Your task to perform on an android device: set default search engine in the chrome app Image 0: 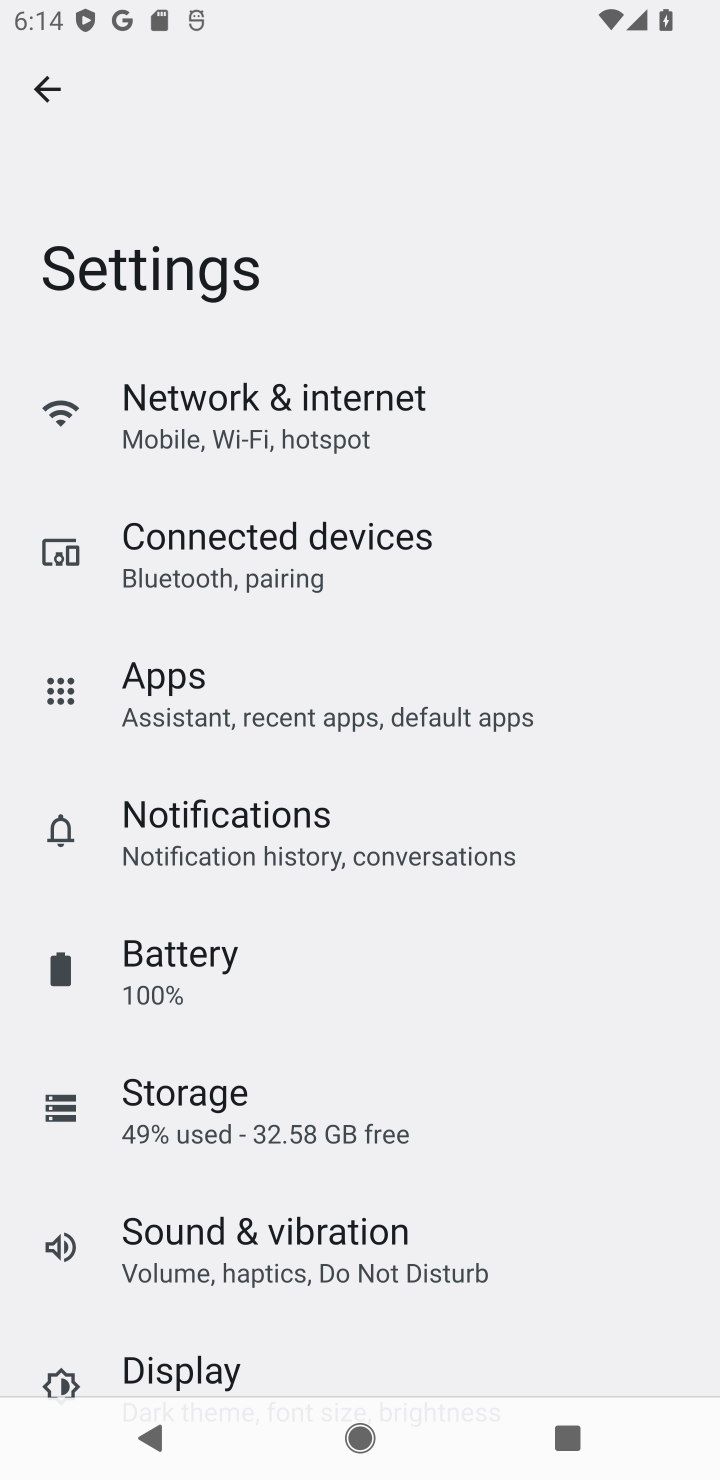
Step 0: press home button
Your task to perform on an android device: set default search engine in the chrome app Image 1: 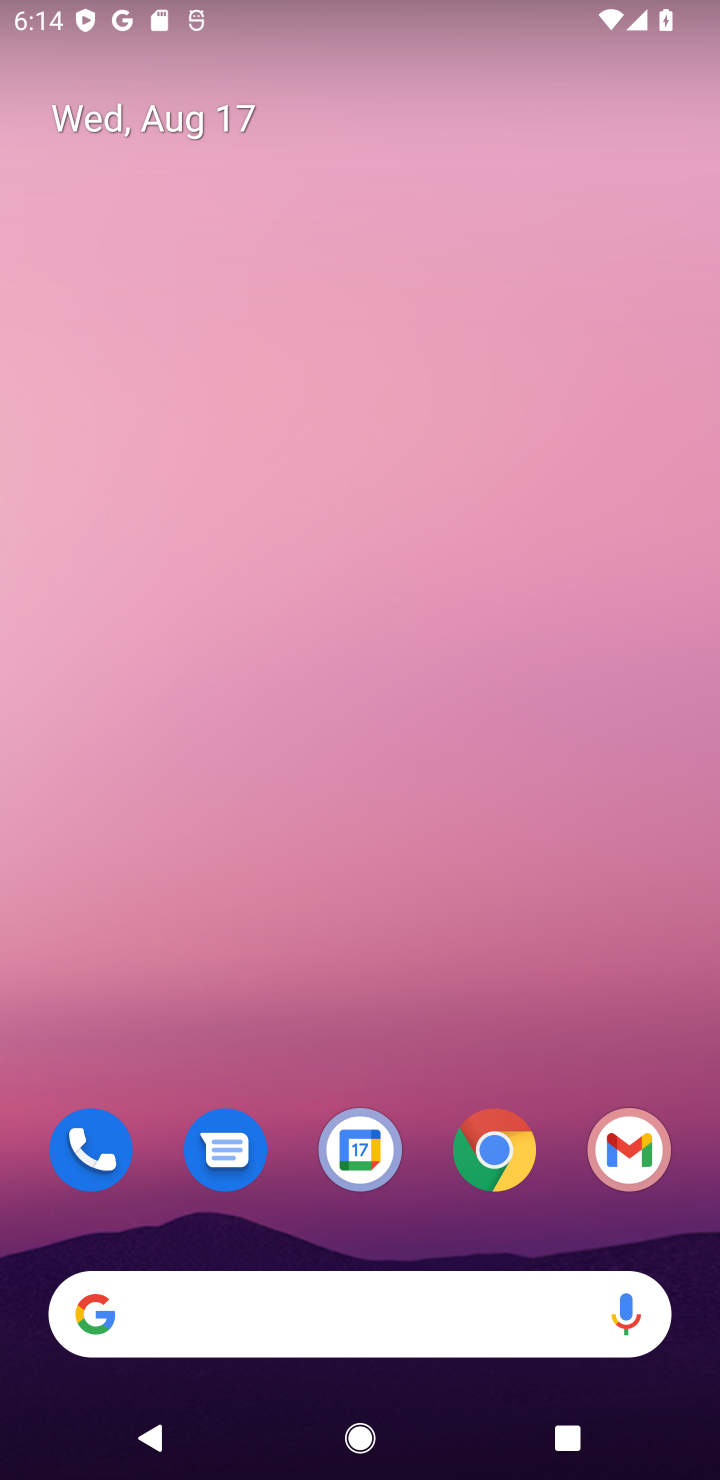
Step 1: click (502, 1159)
Your task to perform on an android device: set default search engine in the chrome app Image 2: 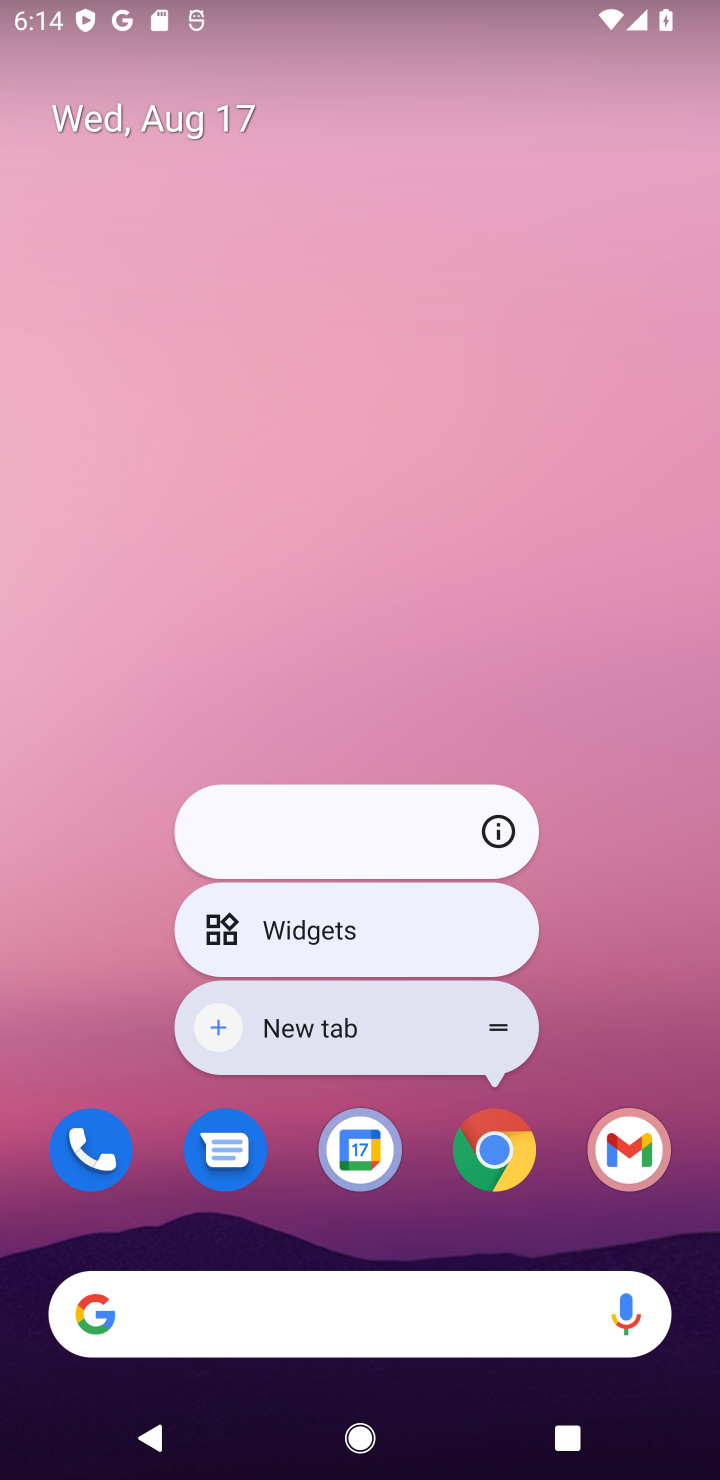
Step 2: click (504, 1159)
Your task to perform on an android device: set default search engine in the chrome app Image 3: 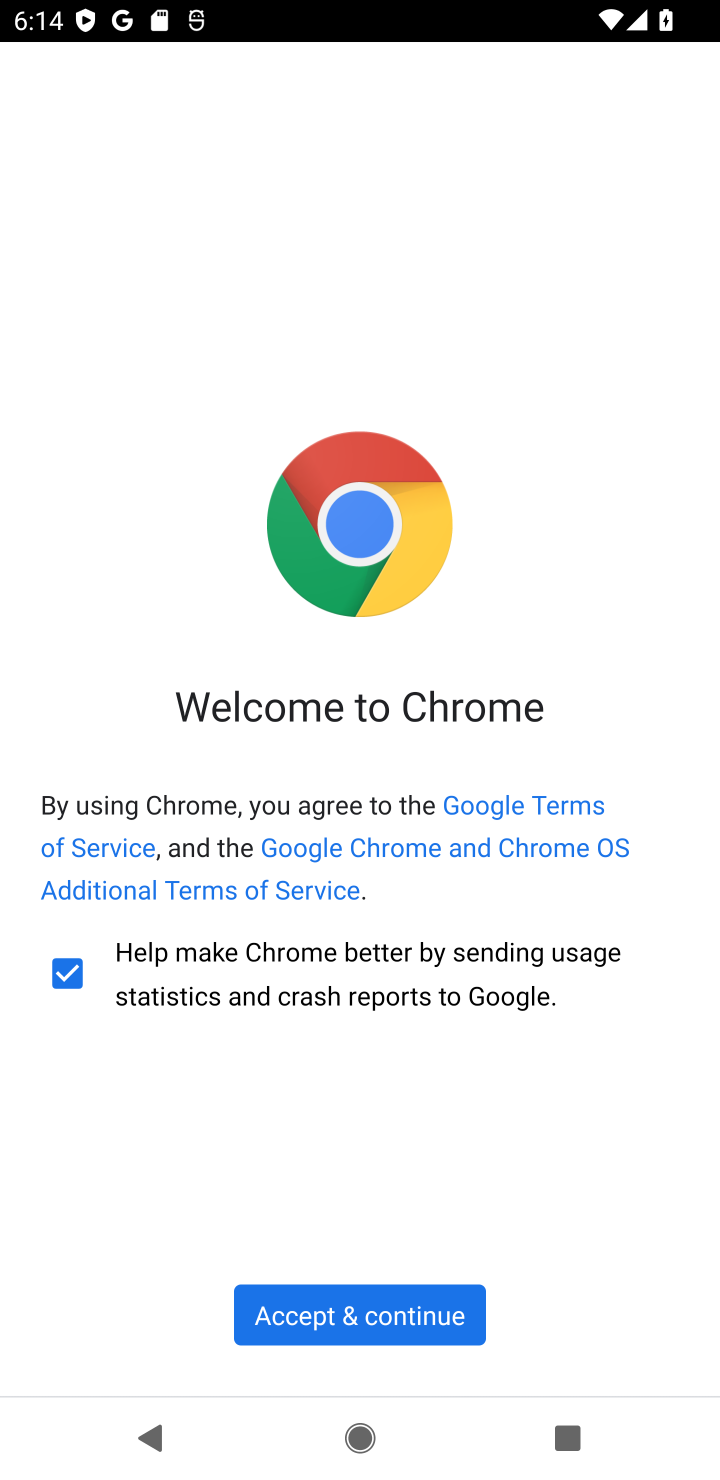
Step 3: click (377, 1325)
Your task to perform on an android device: set default search engine in the chrome app Image 4: 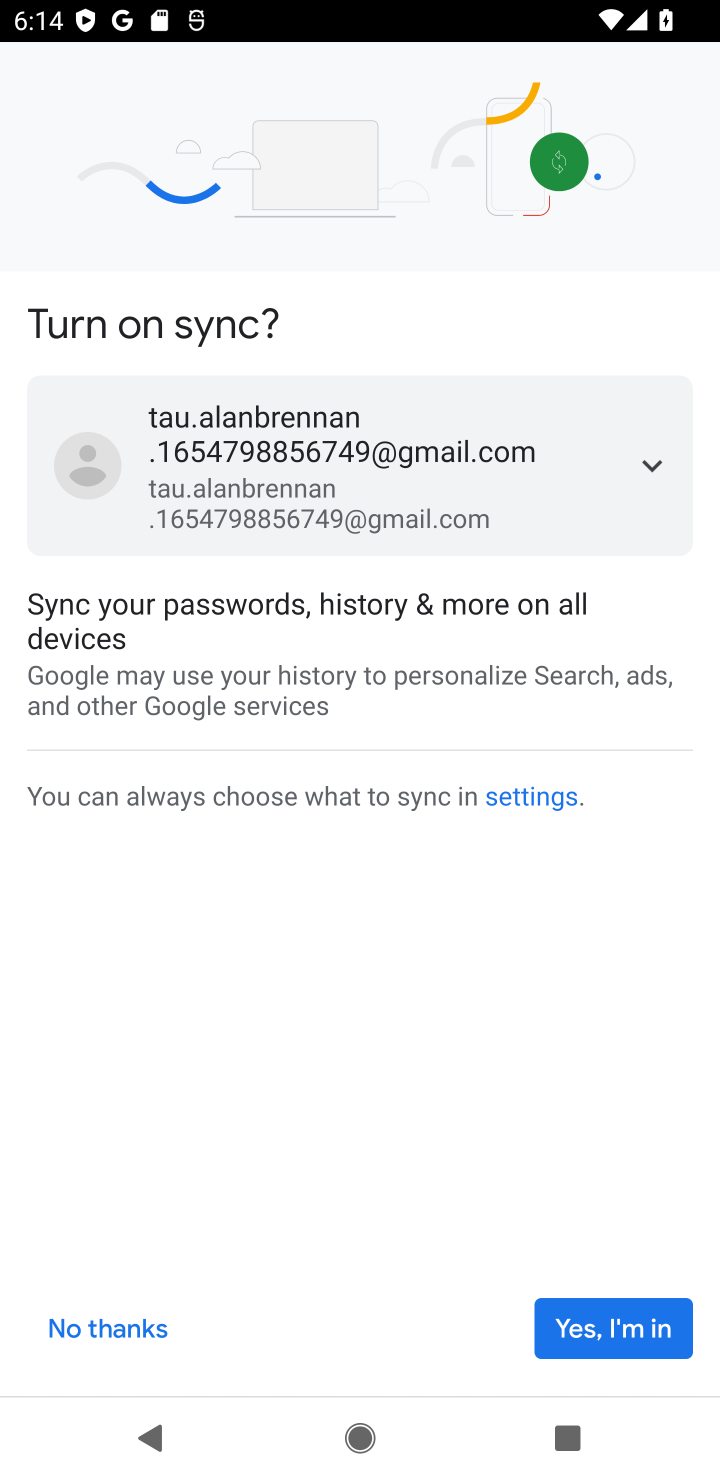
Step 4: click (569, 1332)
Your task to perform on an android device: set default search engine in the chrome app Image 5: 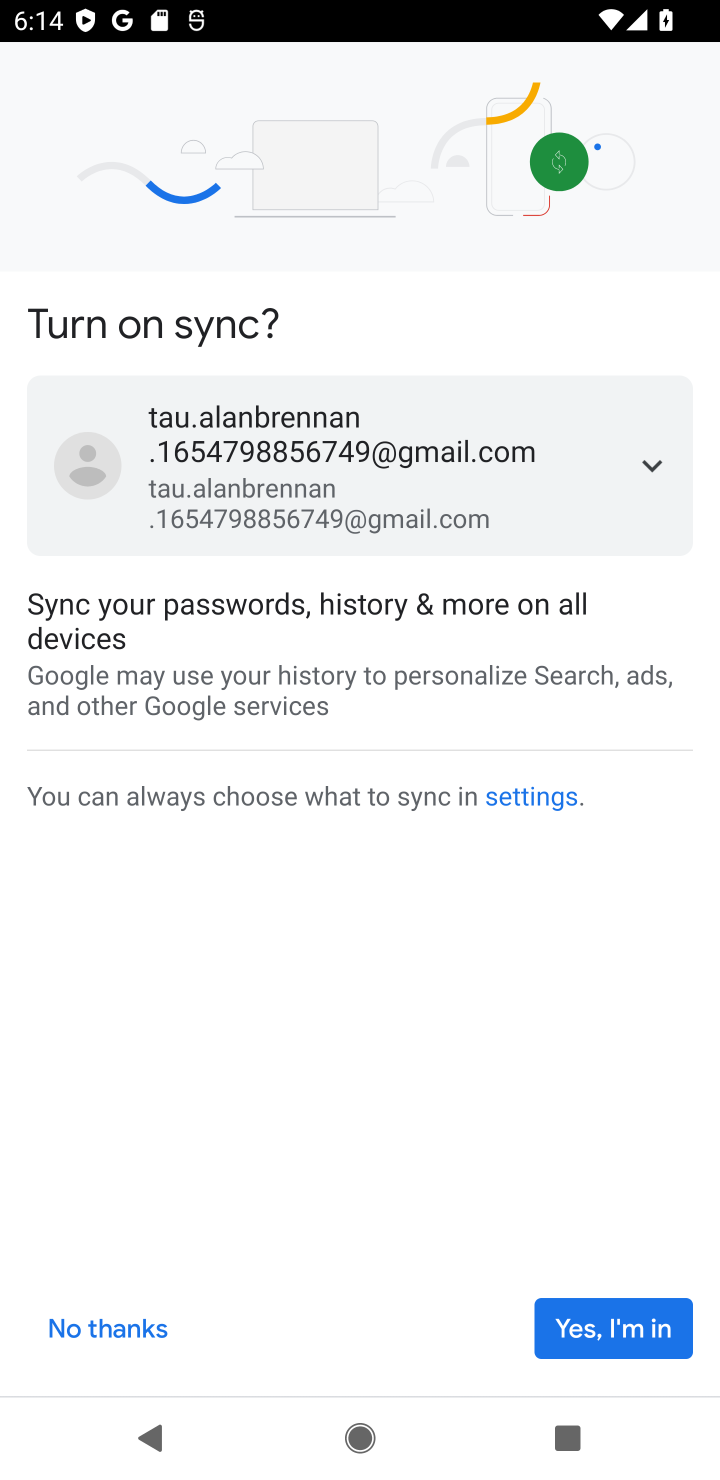
Step 5: click (571, 1336)
Your task to perform on an android device: set default search engine in the chrome app Image 6: 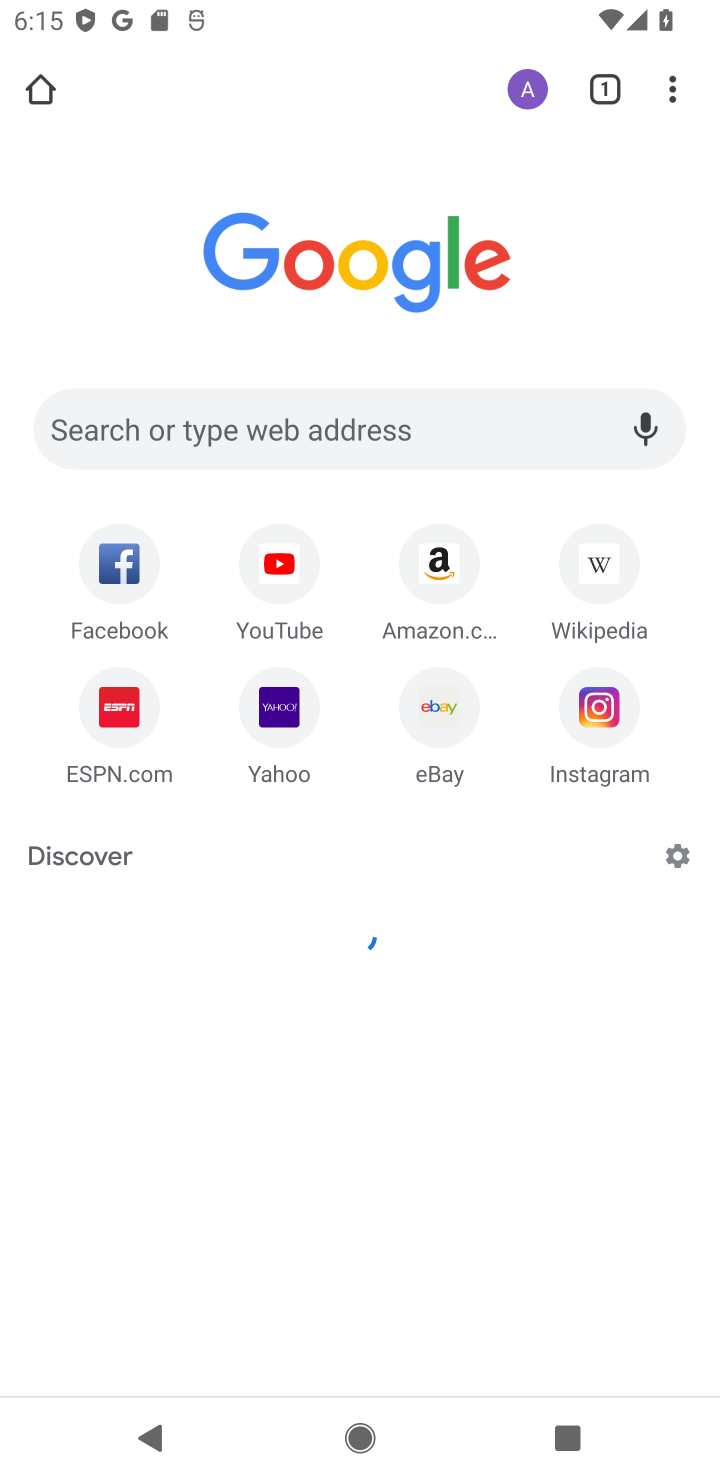
Step 6: click (669, 83)
Your task to perform on an android device: set default search engine in the chrome app Image 7: 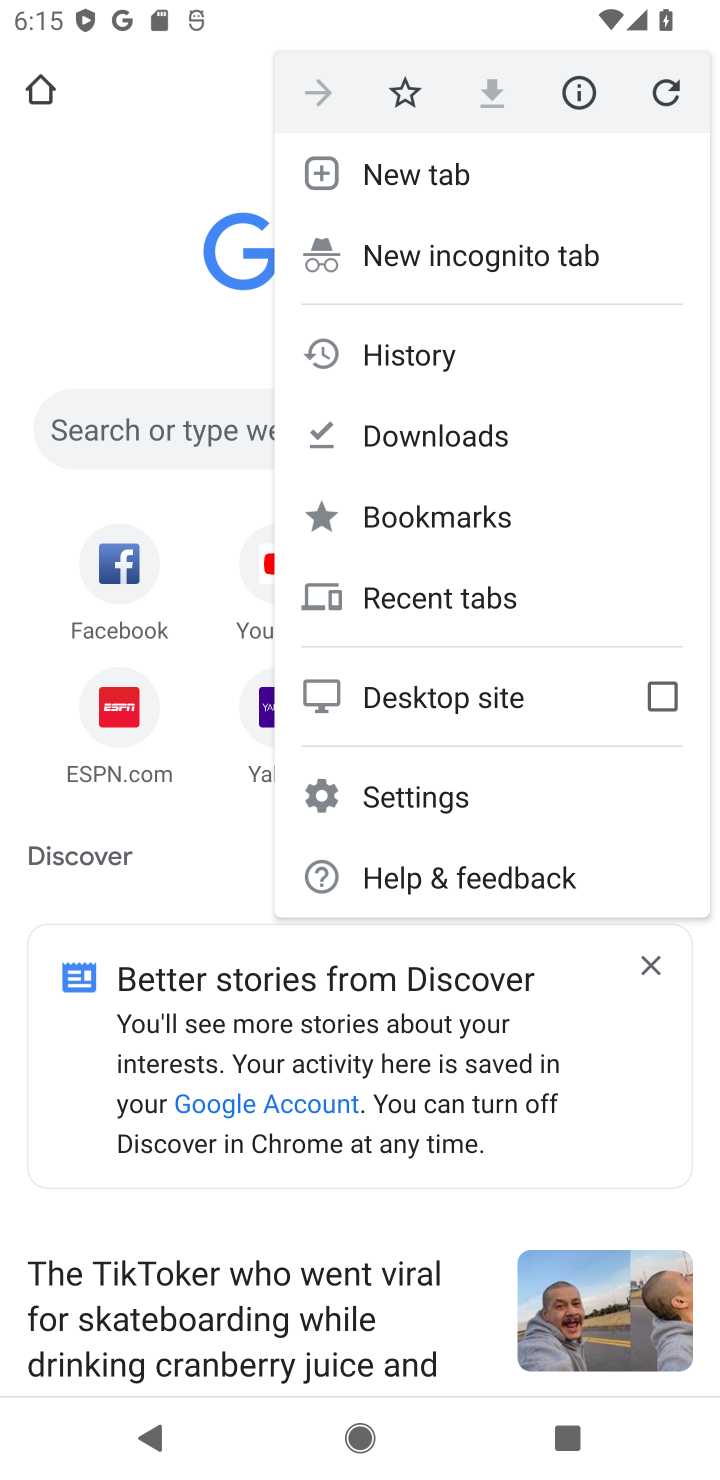
Step 7: click (425, 800)
Your task to perform on an android device: set default search engine in the chrome app Image 8: 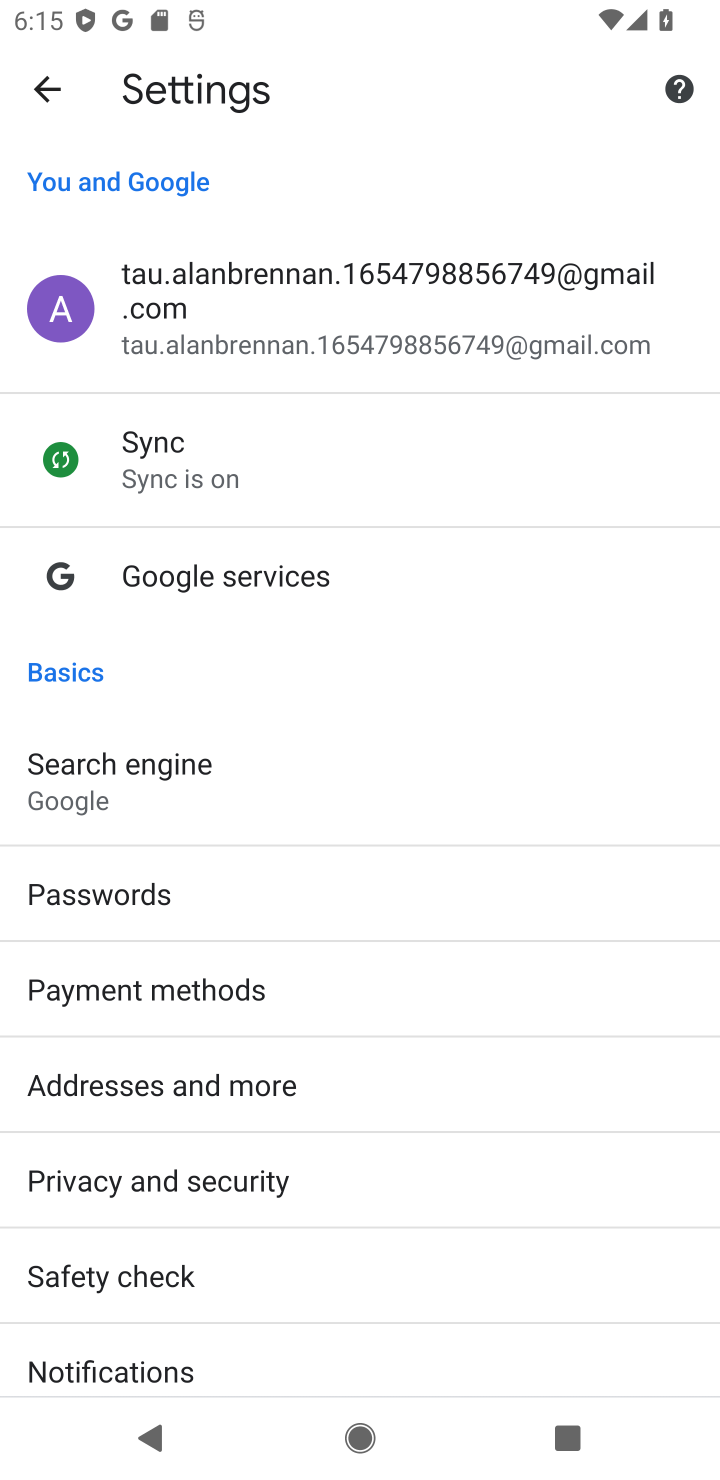
Step 8: click (142, 792)
Your task to perform on an android device: set default search engine in the chrome app Image 9: 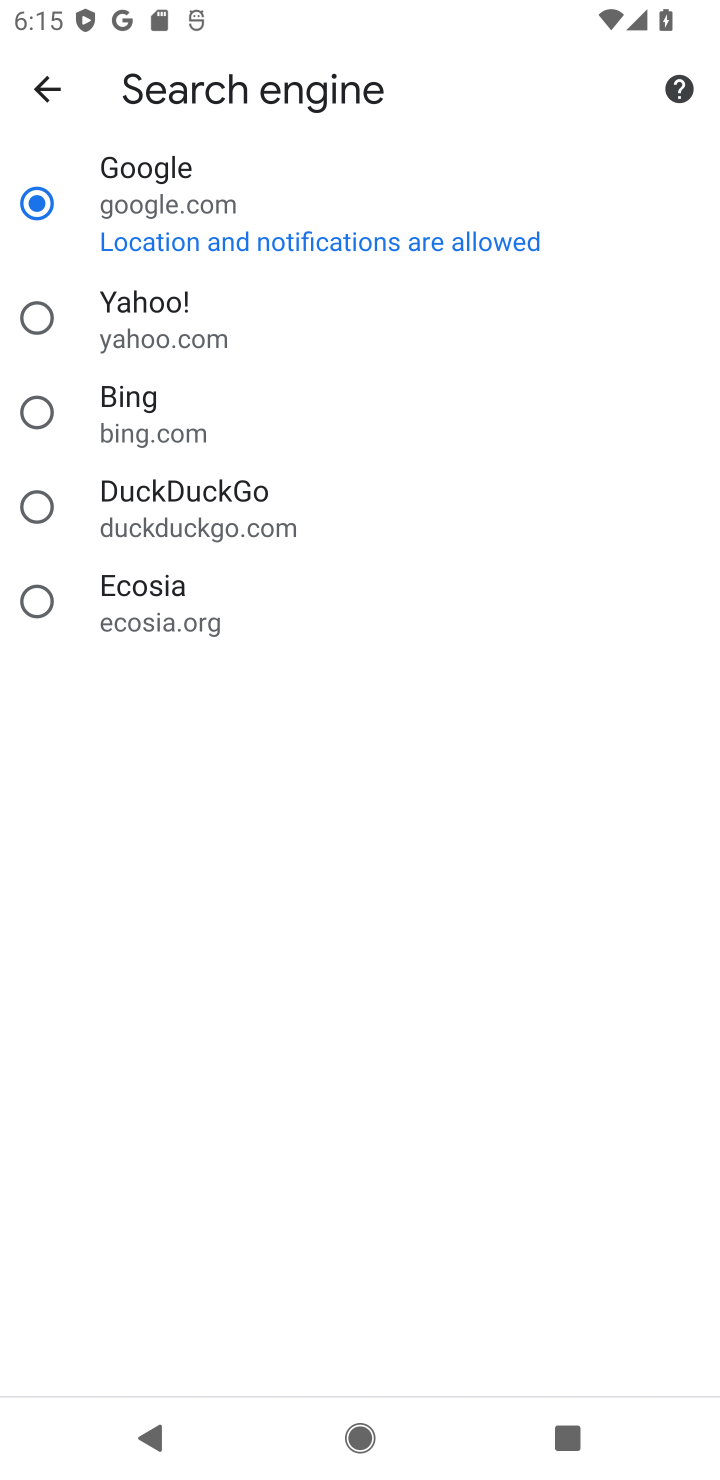
Step 9: task complete